Your task to perform on an android device: snooze an email in the gmail app Image 0: 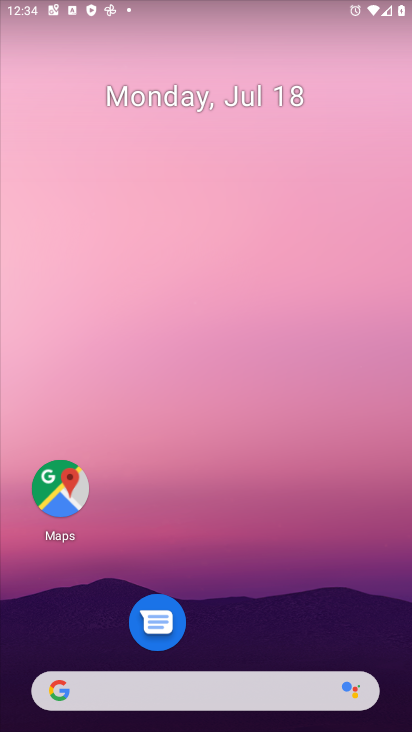
Step 0: drag from (121, 724) to (136, 155)
Your task to perform on an android device: snooze an email in the gmail app Image 1: 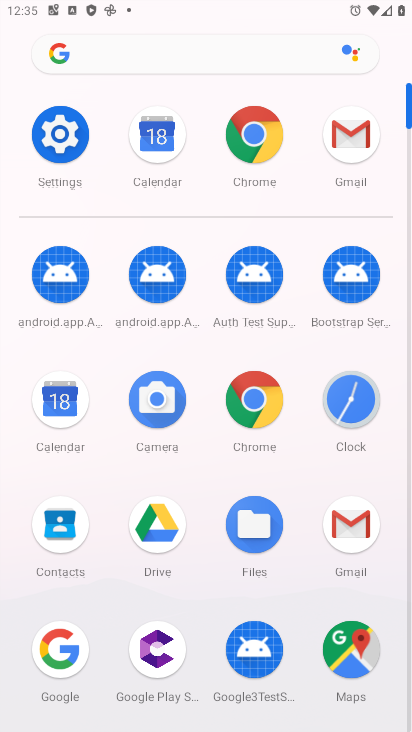
Step 1: click (347, 157)
Your task to perform on an android device: snooze an email in the gmail app Image 2: 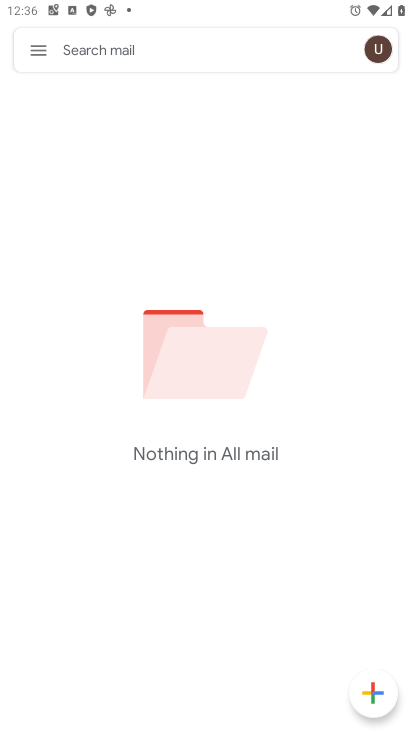
Step 2: task complete